Your task to perform on an android device: Open location settings Image 0: 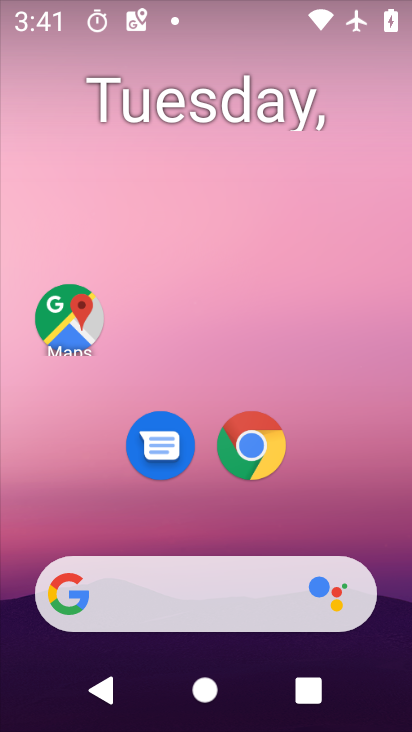
Step 0: drag from (192, 534) to (240, 6)
Your task to perform on an android device: Open location settings Image 1: 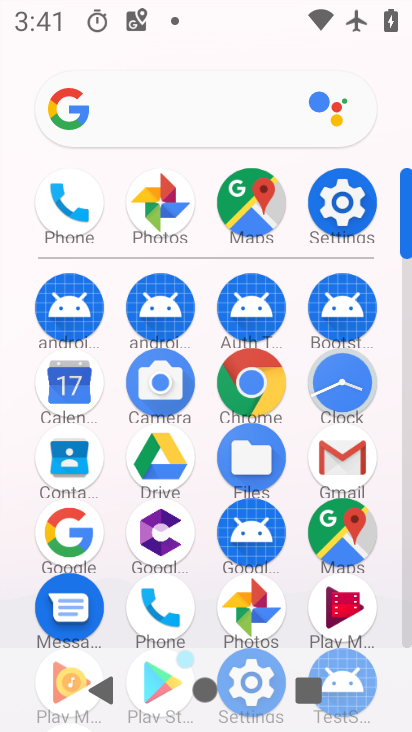
Step 1: click (354, 200)
Your task to perform on an android device: Open location settings Image 2: 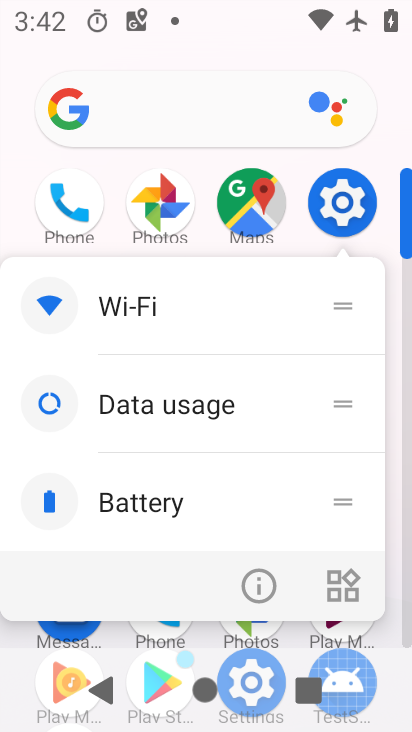
Step 2: click (309, 206)
Your task to perform on an android device: Open location settings Image 3: 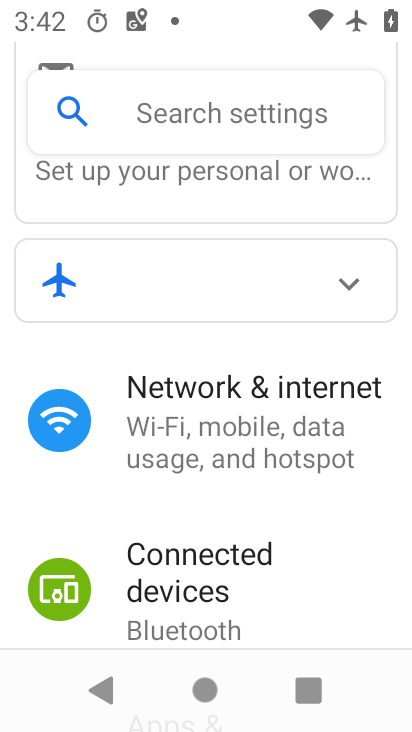
Step 3: drag from (324, 529) to (261, 88)
Your task to perform on an android device: Open location settings Image 4: 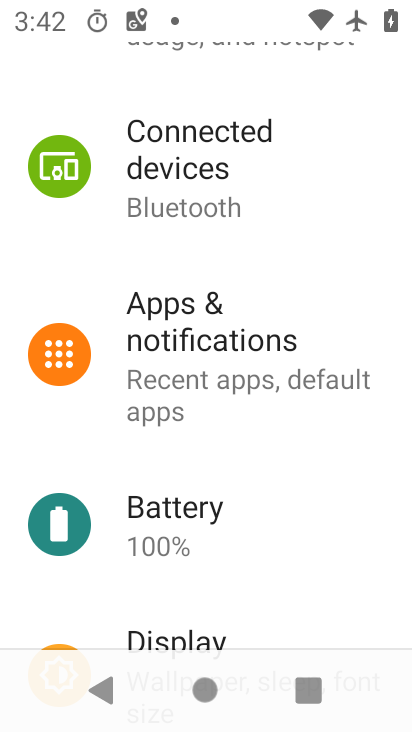
Step 4: drag from (241, 528) to (188, 100)
Your task to perform on an android device: Open location settings Image 5: 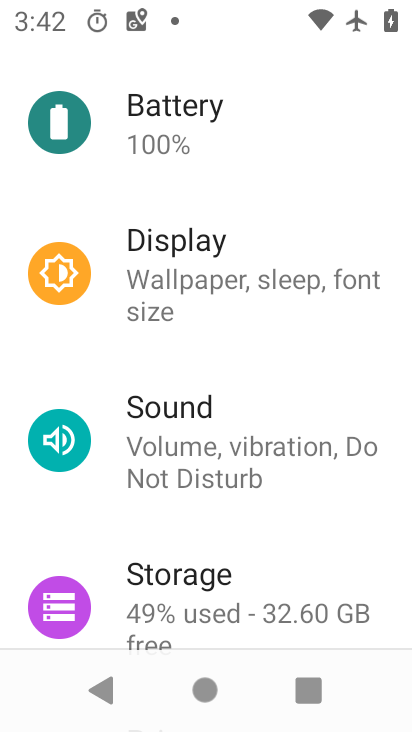
Step 5: drag from (176, 523) to (143, 19)
Your task to perform on an android device: Open location settings Image 6: 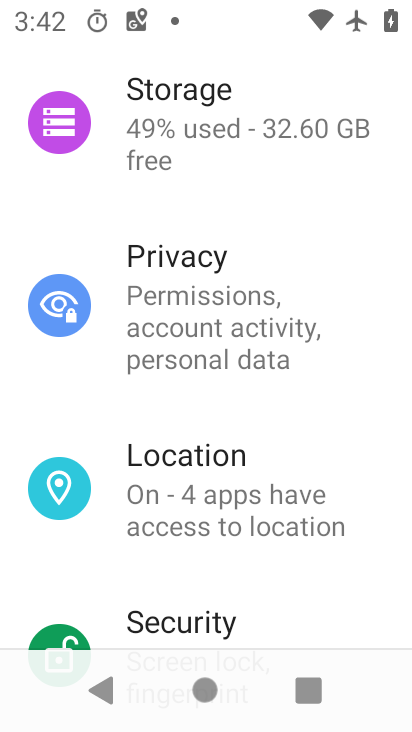
Step 6: click (164, 464)
Your task to perform on an android device: Open location settings Image 7: 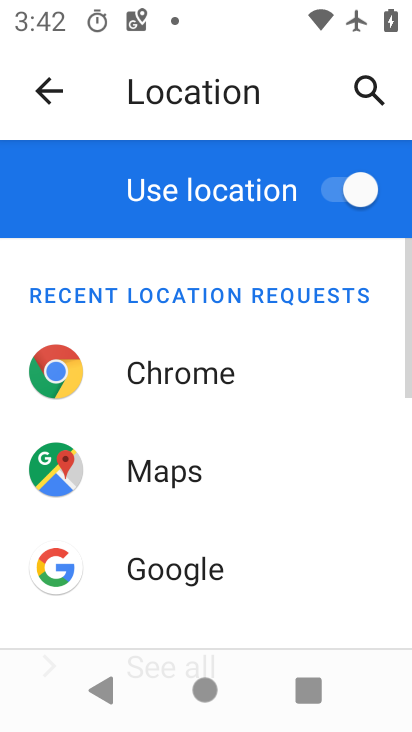
Step 7: task complete